Your task to perform on an android device: turn notification dots on Image 0: 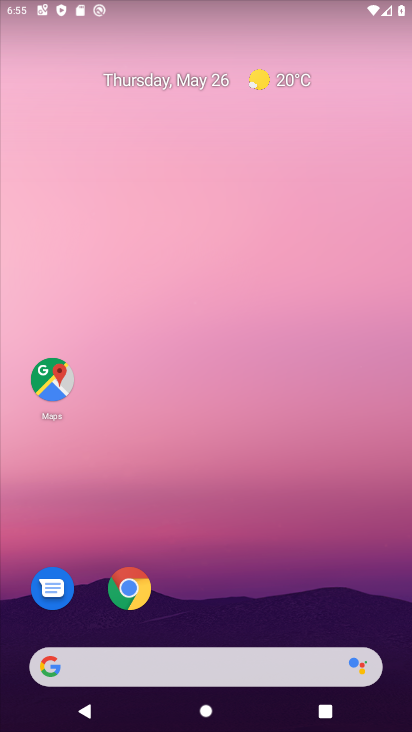
Step 0: drag from (345, 610) to (232, 98)
Your task to perform on an android device: turn notification dots on Image 1: 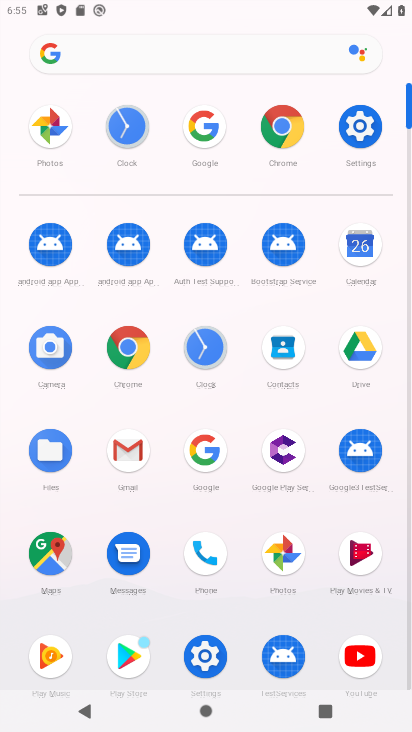
Step 1: click (384, 133)
Your task to perform on an android device: turn notification dots on Image 2: 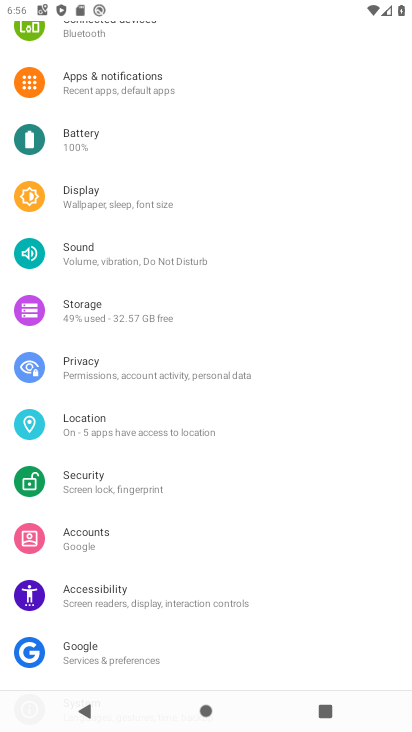
Step 2: click (103, 81)
Your task to perform on an android device: turn notification dots on Image 3: 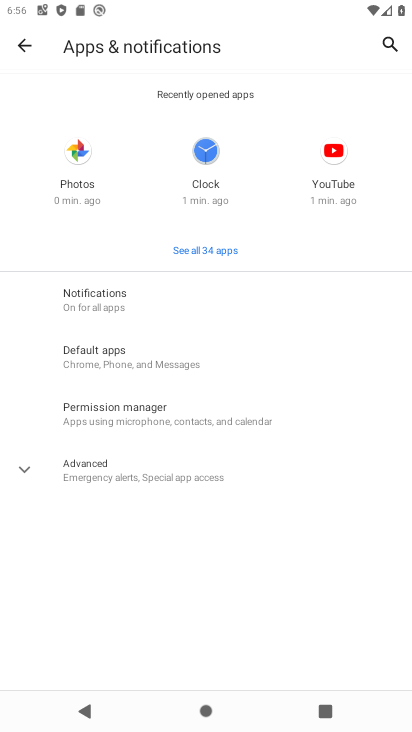
Step 3: click (164, 299)
Your task to perform on an android device: turn notification dots on Image 4: 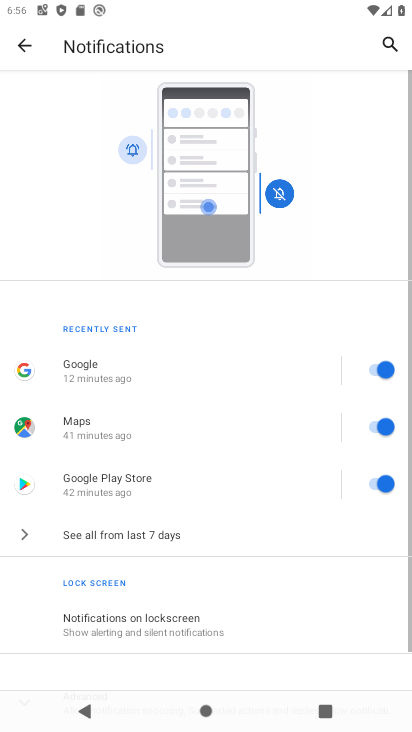
Step 4: drag from (143, 605) to (169, 128)
Your task to perform on an android device: turn notification dots on Image 5: 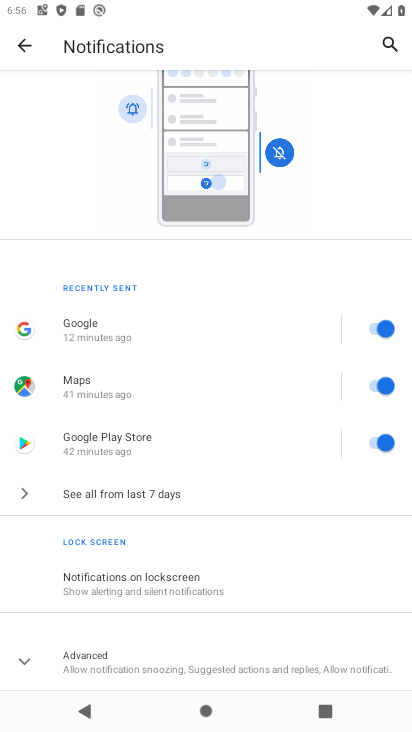
Step 5: drag from (166, 625) to (234, 204)
Your task to perform on an android device: turn notification dots on Image 6: 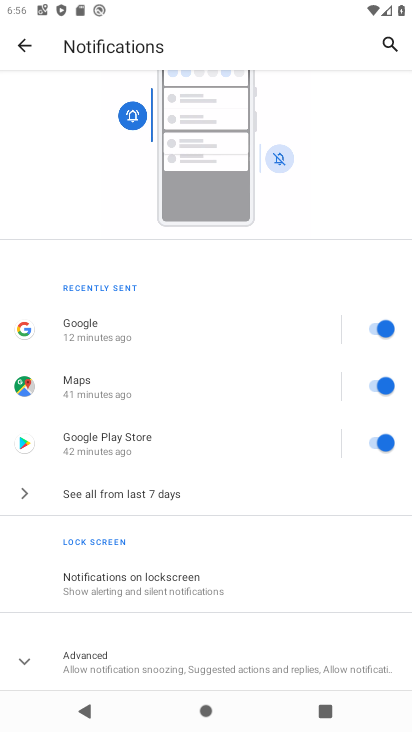
Step 6: click (139, 655)
Your task to perform on an android device: turn notification dots on Image 7: 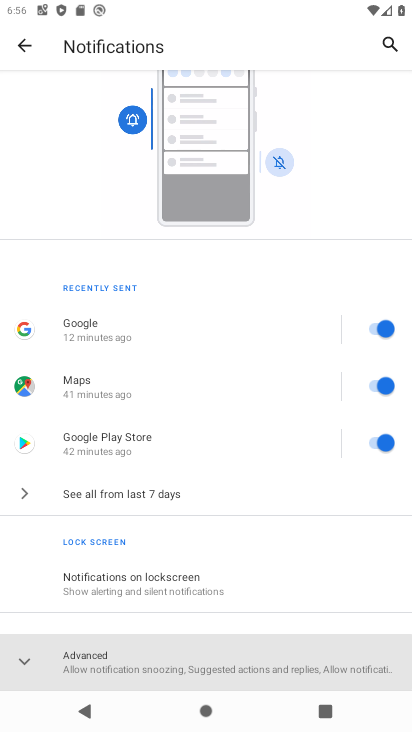
Step 7: task complete